Your task to perform on an android device: Open notification settings Image 0: 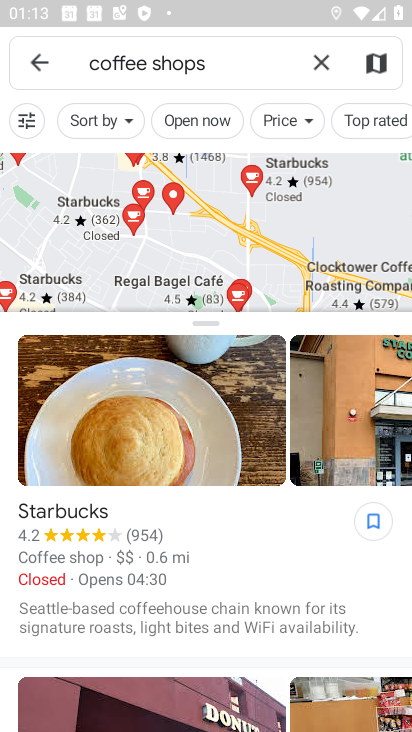
Step 0: press home button
Your task to perform on an android device: Open notification settings Image 1: 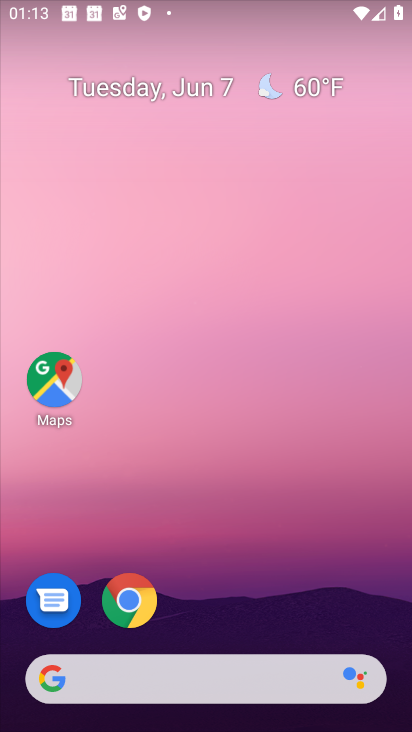
Step 1: drag from (211, 605) to (232, 226)
Your task to perform on an android device: Open notification settings Image 2: 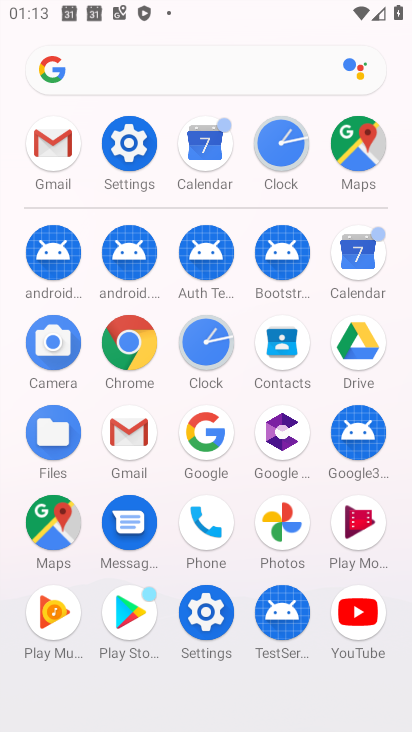
Step 2: click (126, 137)
Your task to perform on an android device: Open notification settings Image 3: 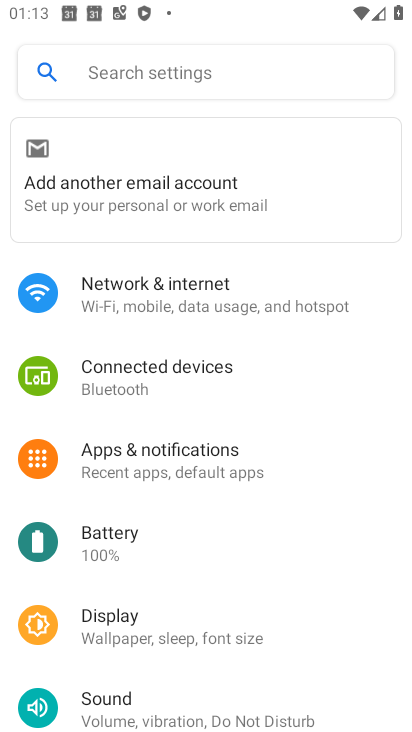
Step 3: click (101, 454)
Your task to perform on an android device: Open notification settings Image 4: 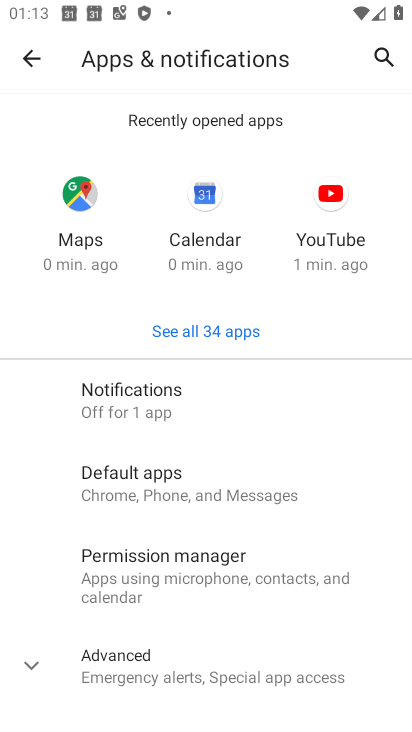
Step 4: click (135, 397)
Your task to perform on an android device: Open notification settings Image 5: 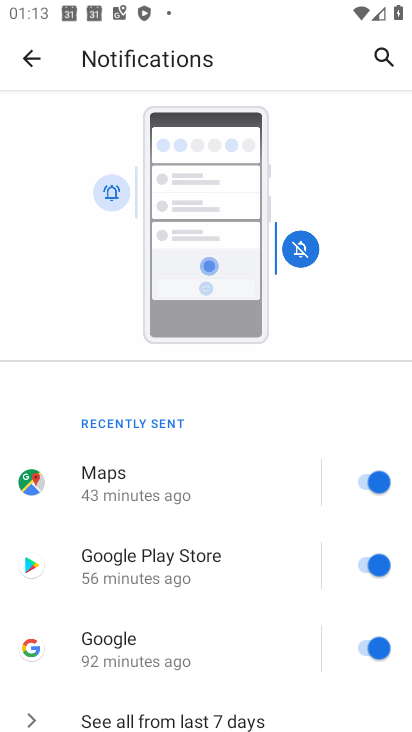
Step 5: task complete